Your task to perform on an android device: turn off picture-in-picture Image 0: 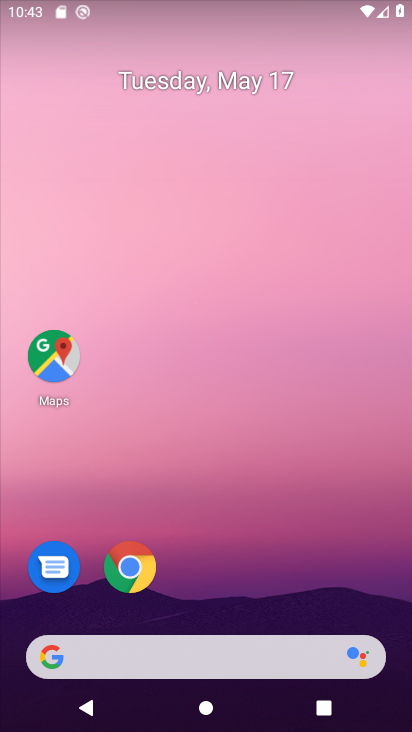
Step 0: drag from (193, 533) to (247, 49)
Your task to perform on an android device: turn off picture-in-picture Image 1: 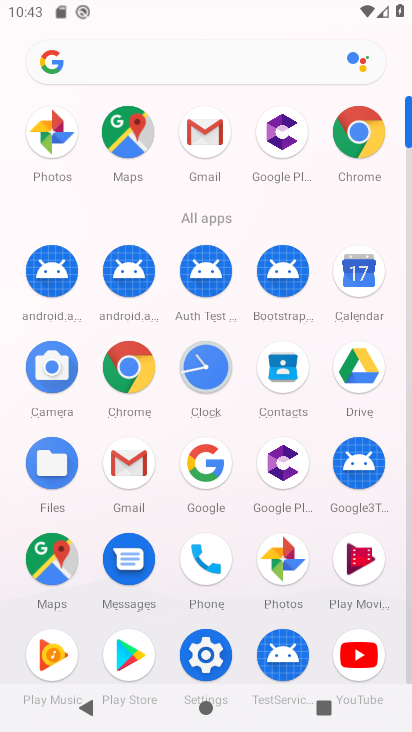
Step 1: click (224, 648)
Your task to perform on an android device: turn off picture-in-picture Image 2: 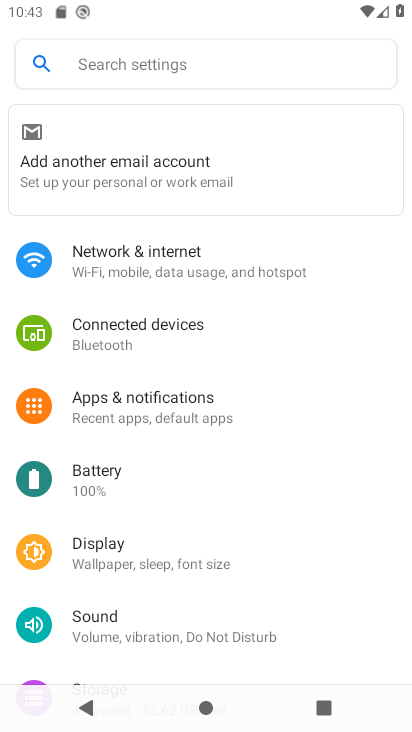
Step 2: drag from (186, 594) to (287, 54)
Your task to perform on an android device: turn off picture-in-picture Image 3: 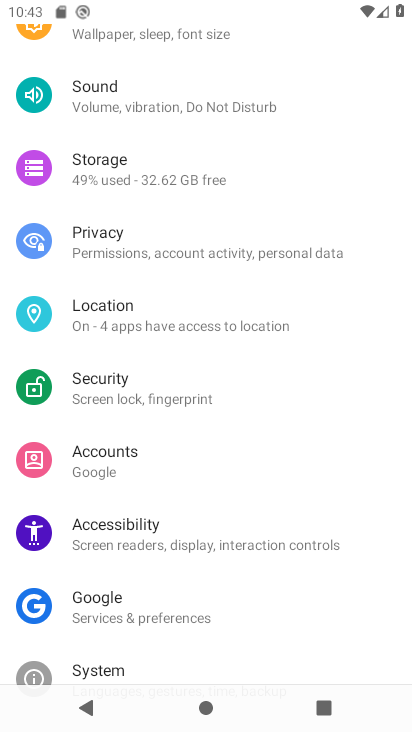
Step 3: drag from (211, 184) to (206, 688)
Your task to perform on an android device: turn off picture-in-picture Image 4: 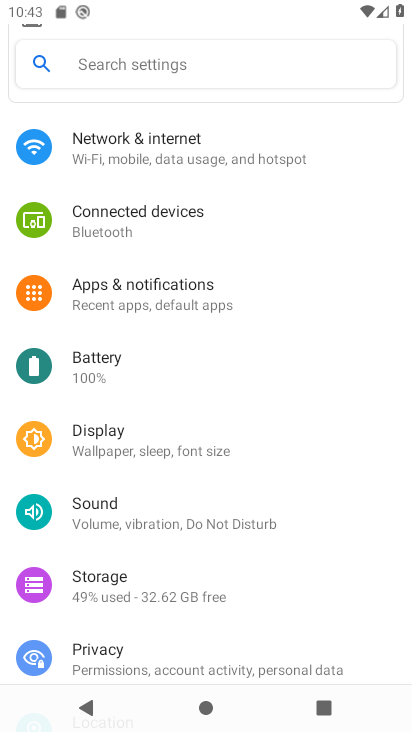
Step 4: click (128, 285)
Your task to perform on an android device: turn off picture-in-picture Image 5: 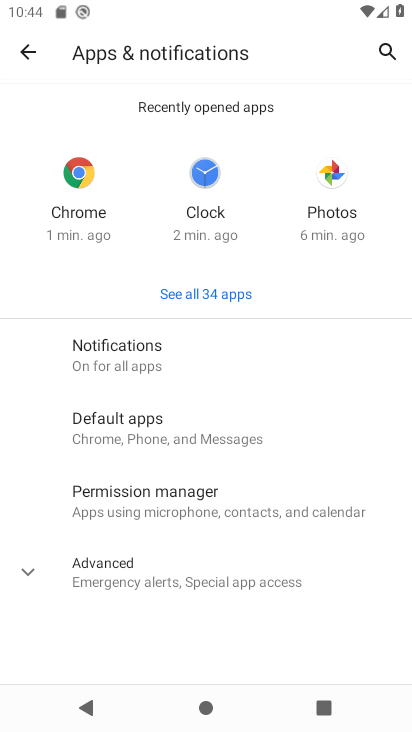
Step 5: click (154, 348)
Your task to perform on an android device: turn off picture-in-picture Image 6: 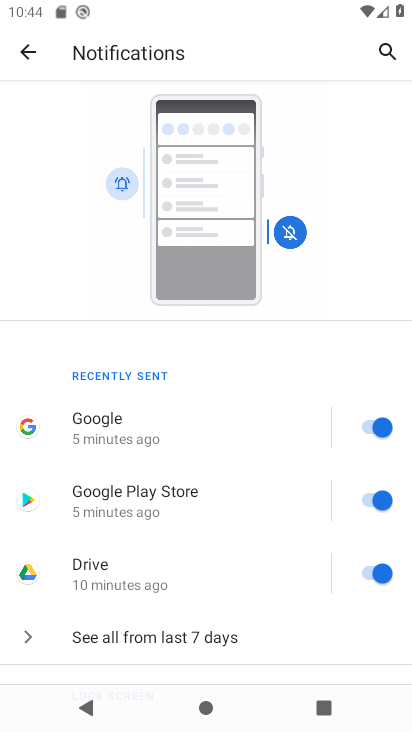
Step 6: drag from (172, 583) to (263, 136)
Your task to perform on an android device: turn off picture-in-picture Image 7: 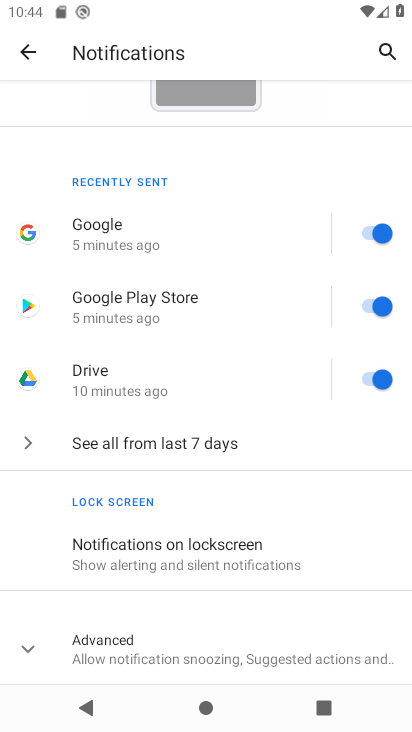
Step 7: click (137, 647)
Your task to perform on an android device: turn off picture-in-picture Image 8: 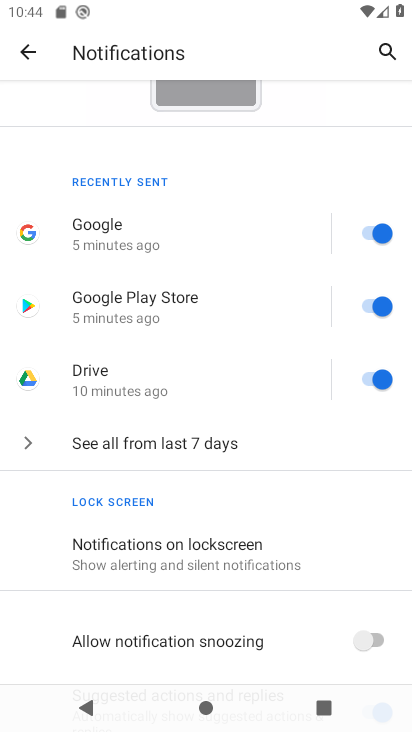
Step 8: drag from (225, 567) to (269, 223)
Your task to perform on an android device: turn off picture-in-picture Image 9: 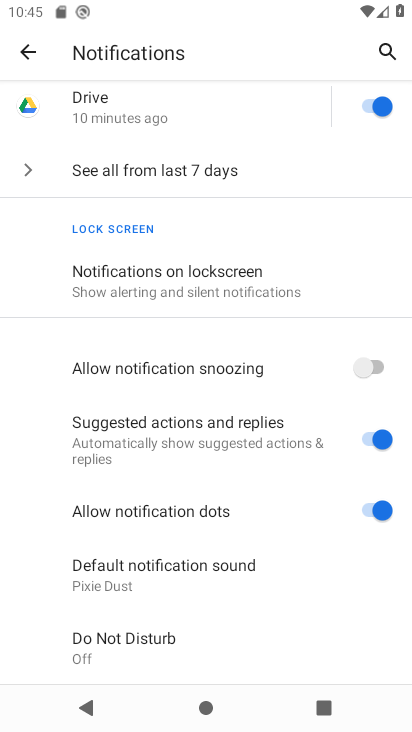
Step 9: drag from (167, 660) to (324, 22)
Your task to perform on an android device: turn off picture-in-picture Image 10: 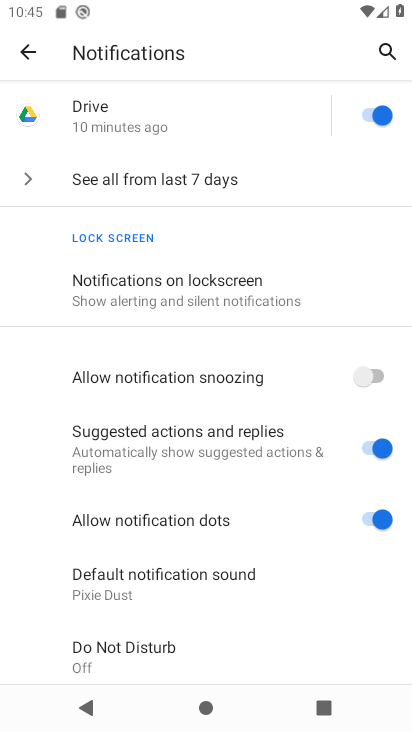
Step 10: click (34, 48)
Your task to perform on an android device: turn off picture-in-picture Image 11: 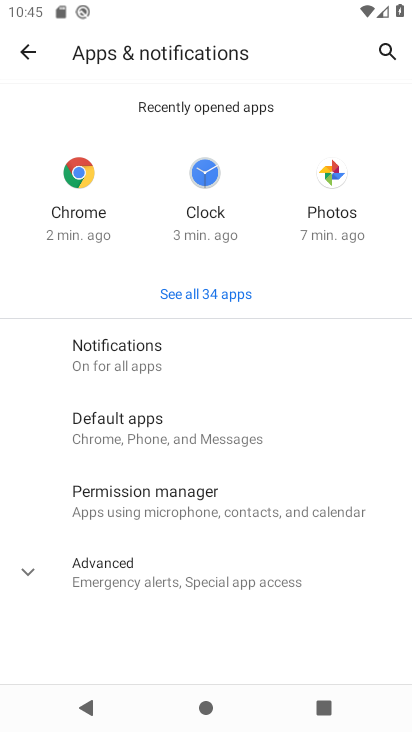
Step 11: click (215, 577)
Your task to perform on an android device: turn off picture-in-picture Image 12: 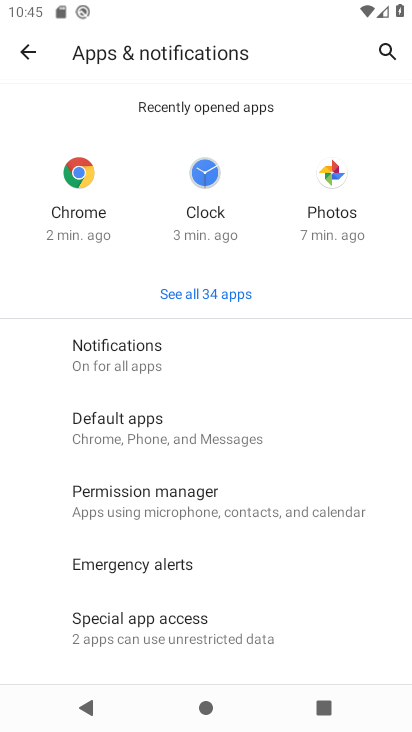
Step 12: drag from (190, 607) to (245, 124)
Your task to perform on an android device: turn off picture-in-picture Image 13: 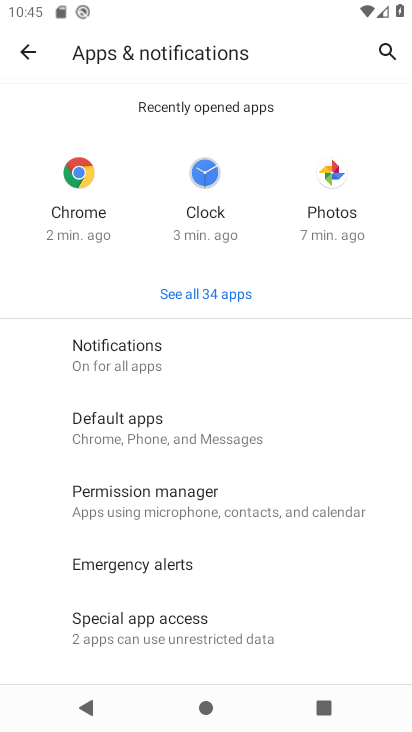
Step 13: drag from (133, 627) to (189, 202)
Your task to perform on an android device: turn off picture-in-picture Image 14: 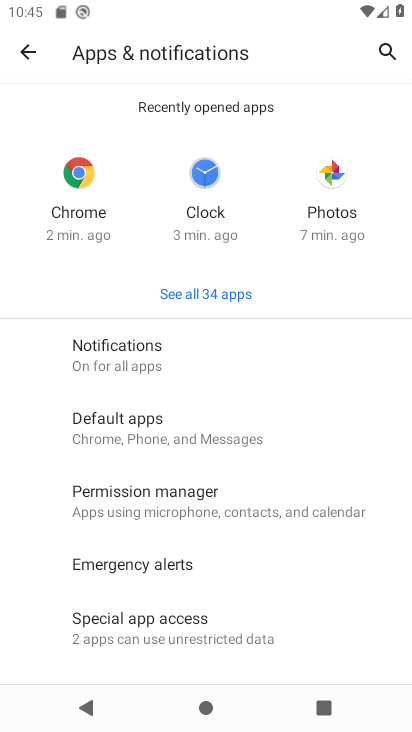
Step 14: click (136, 627)
Your task to perform on an android device: turn off picture-in-picture Image 15: 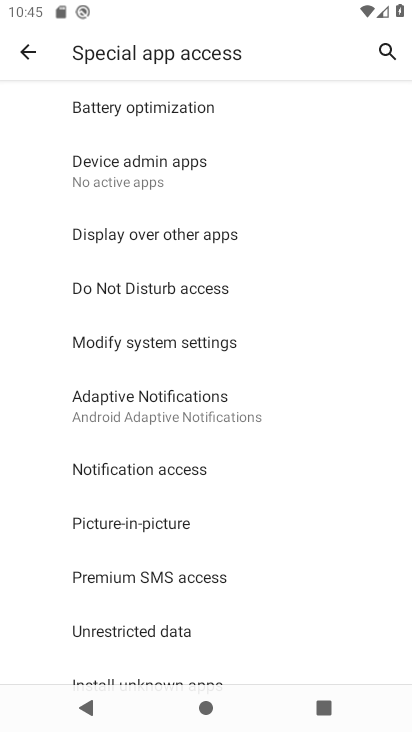
Step 15: click (157, 522)
Your task to perform on an android device: turn off picture-in-picture Image 16: 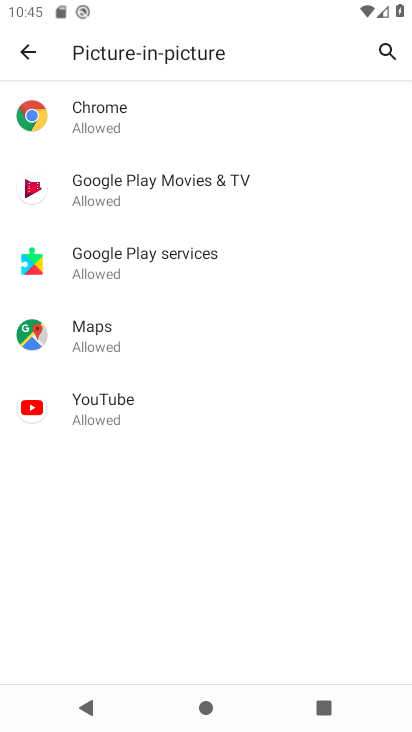
Step 16: click (98, 105)
Your task to perform on an android device: turn off picture-in-picture Image 17: 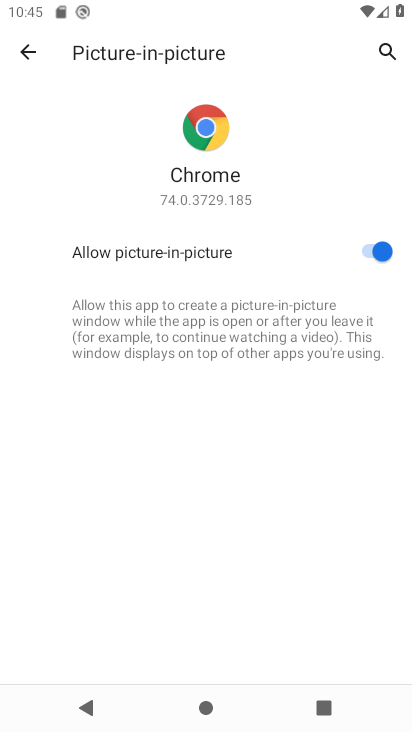
Step 17: click (382, 254)
Your task to perform on an android device: turn off picture-in-picture Image 18: 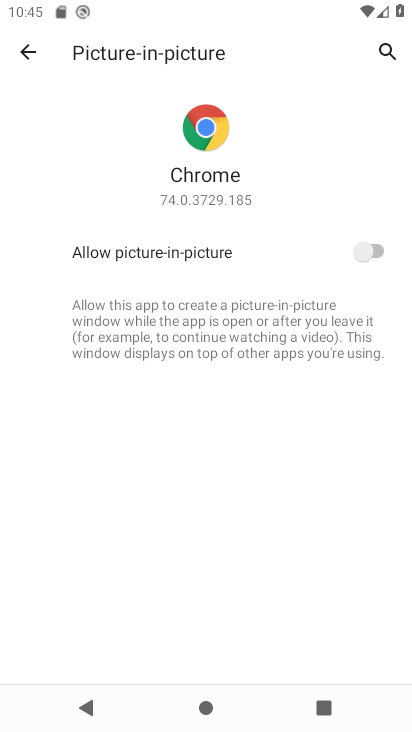
Step 18: task complete